Your task to perform on an android device: Go to Google maps Image 0: 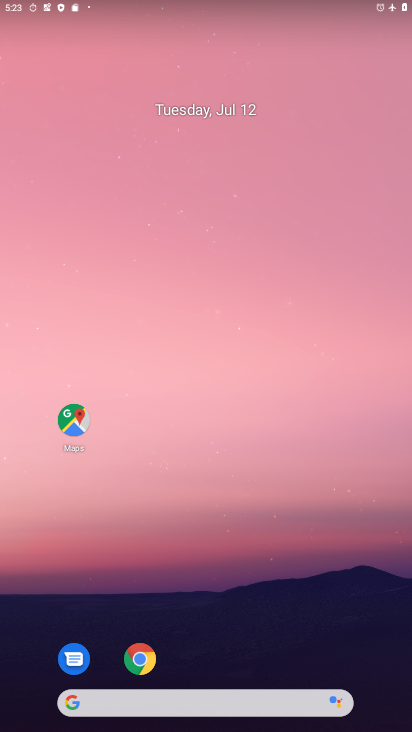
Step 0: drag from (216, 85) to (239, 25)
Your task to perform on an android device: Go to Google maps Image 1: 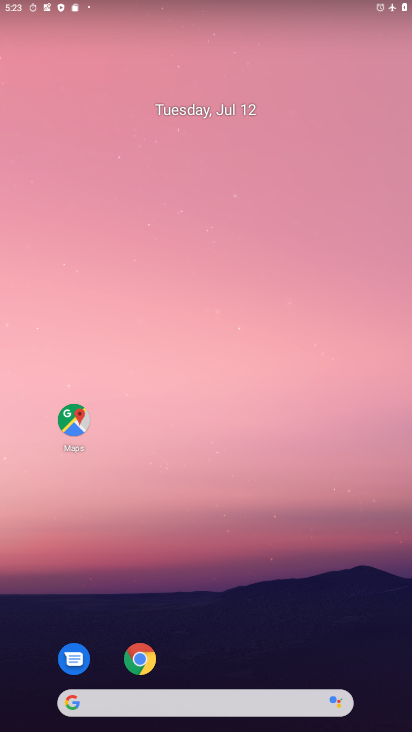
Step 1: click (69, 430)
Your task to perform on an android device: Go to Google maps Image 2: 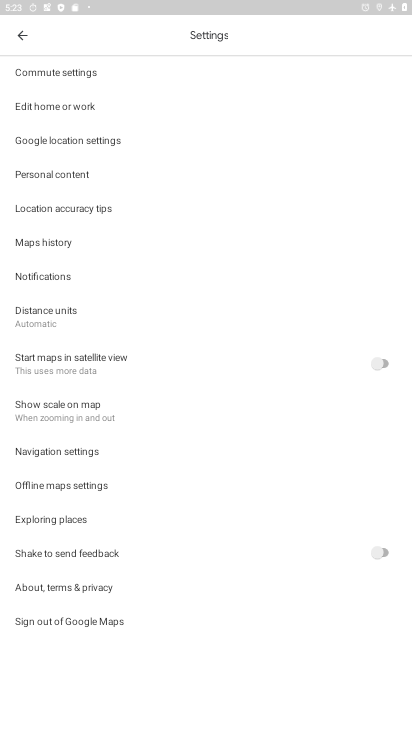
Step 2: click (20, 37)
Your task to perform on an android device: Go to Google maps Image 3: 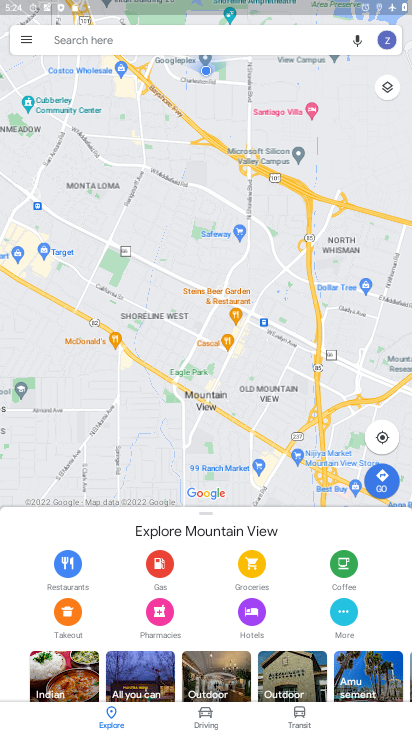
Step 3: task complete